Your task to perform on an android device: toggle javascript in the chrome app Image 0: 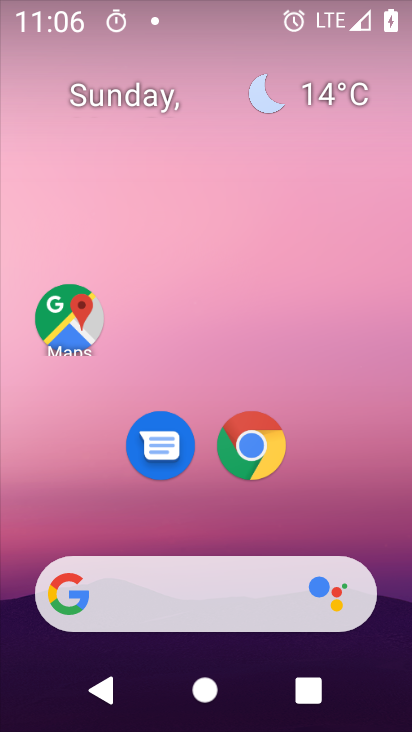
Step 0: drag from (209, 511) to (221, 149)
Your task to perform on an android device: toggle javascript in the chrome app Image 1: 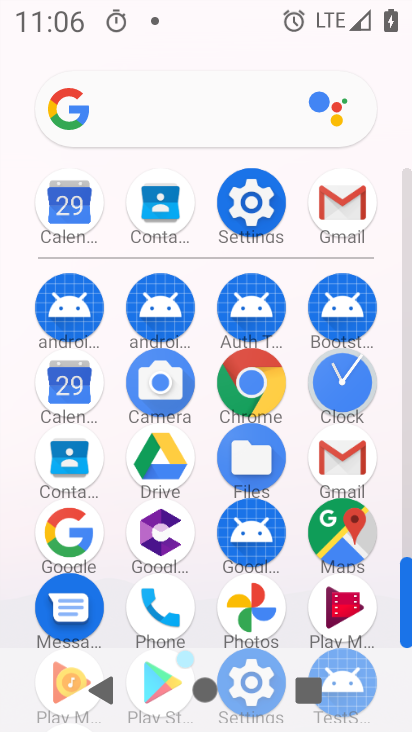
Step 1: click (258, 386)
Your task to perform on an android device: toggle javascript in the chrome app Image 2: 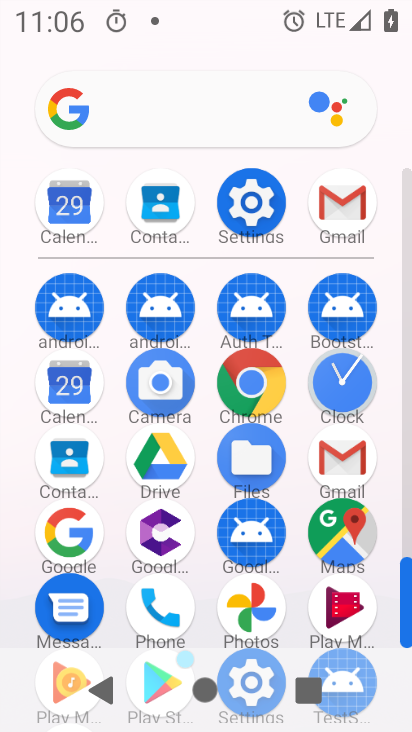
Step 2: click (258, 386)
Your task to perform on an android device: toggle javascript in the chrome app Image 3: 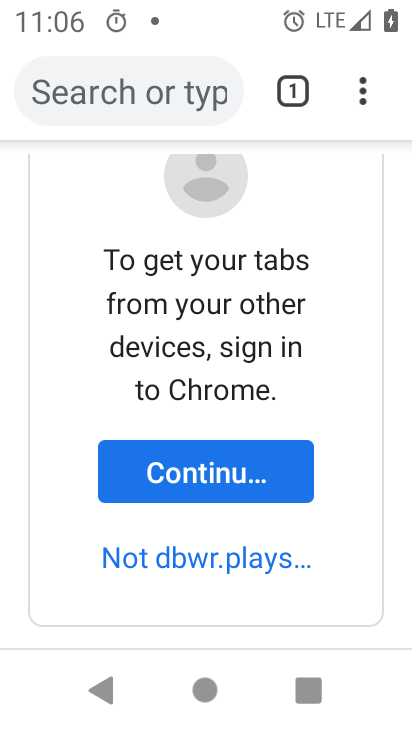
Step 3: drag from (371, 88) to (179, 479)
Your task to perform on an android device: toggle javascript in the chrome app Image 4: 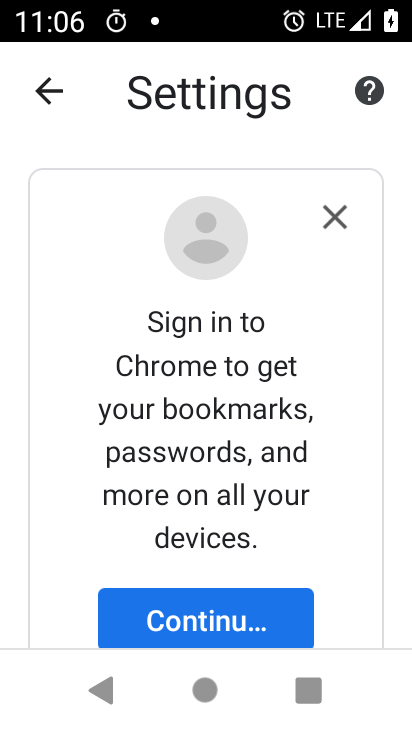
Step 4: drag from (214, 567) to (288, 90)
Your task to perform on an android device: toggle javascript in the chrome app Image 5: 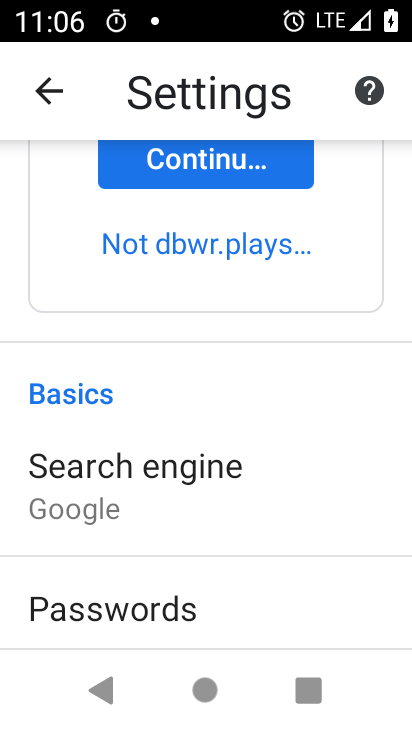
Step 5: drag from (249, 586) to (339, 16)
Your task to perform on an android device: toggle javascript in the chrome app Image 6: 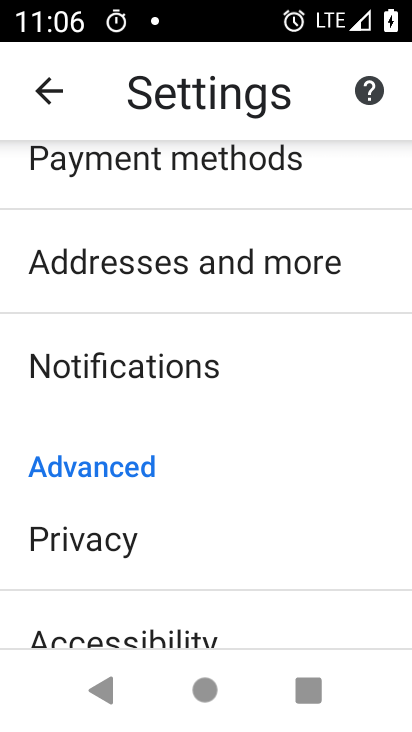
Step 6: drag from (159, 535) to (334, 9)
Your task to perform on an android device: toggle javascript in the chrome app Image 7: 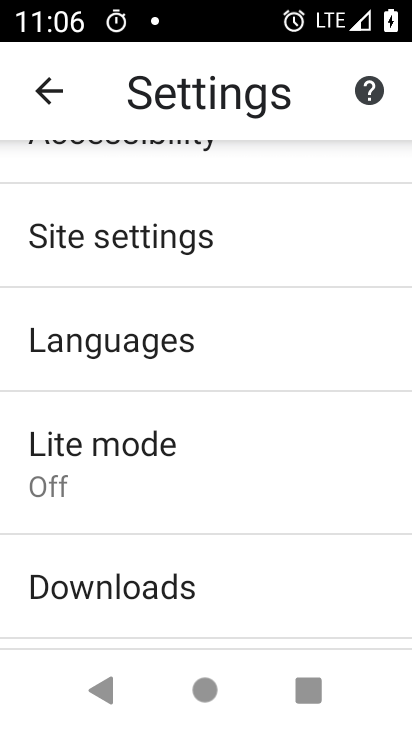
Step 7: click (180, 262)
Your task to perform on an android device: toggle javascript in the chrome app Image 8: 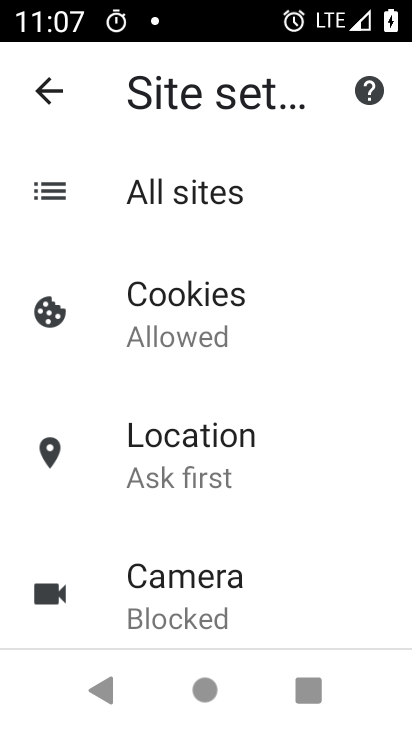
Step 8: drag from (252, 594) to (326, 92)
Your task to perform on an android device: toggle javascript in the chrome app Image 9: 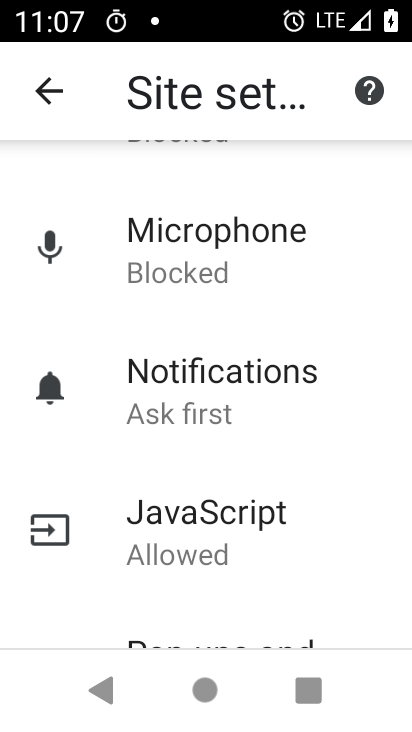
Step 9: drag from (248, 535) to (299, 135)
Your task to perform on an android device: toggle javascript in the chrome app Image 10: 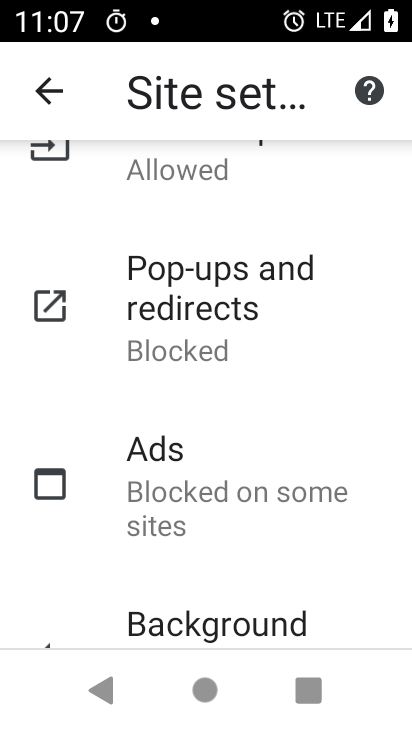
Step 10: drag from (227, 569) to (235, 711)
Your task to perform on an android device: toggle javascript in the chrome app Image 11: 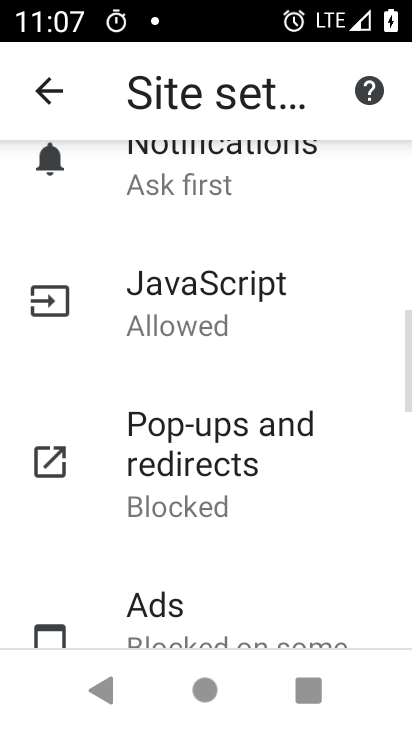
Step 11: click (209, 343)
Your task to perform on an android device: toggle javascript in the chrome app Image 12: 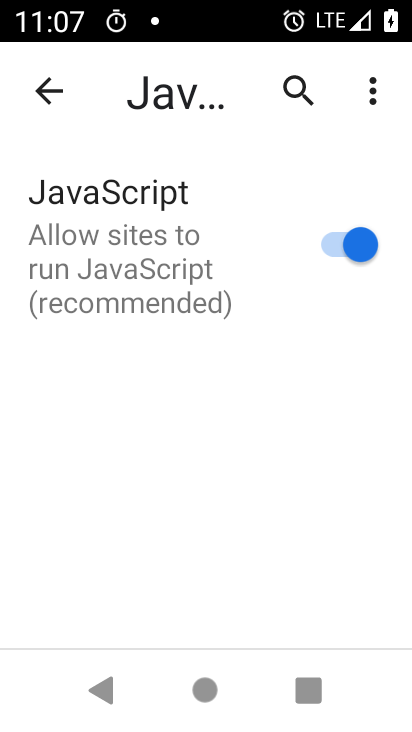
Step 12: click (334, 231)
Your task to perform on an android device: toggle javascript in the chrome app Image 13: 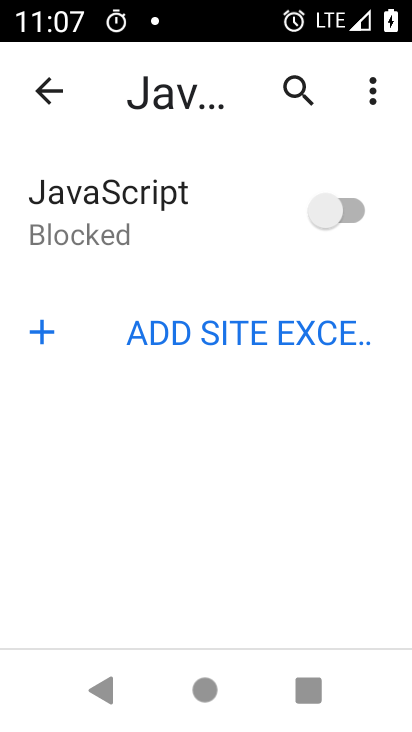
Step 13: task complete